Your task to perform on an android device: turn on notifications settings in the gmail app Image 0: 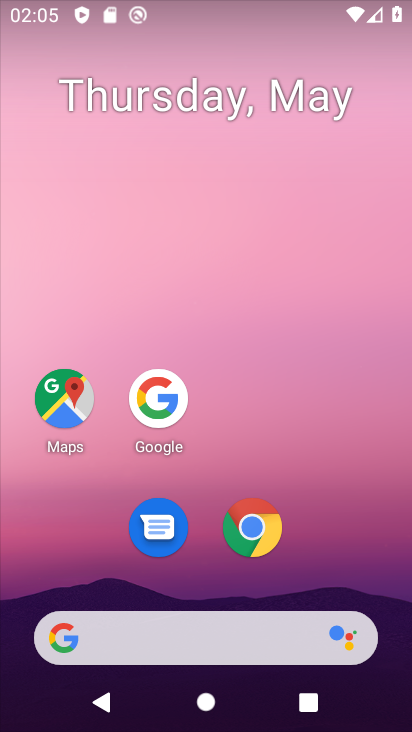
Step 0: drag from (213, 589) to (259, 227)
Your task to perform on an android device: turn on notifications settings in the gmail app Image 1: 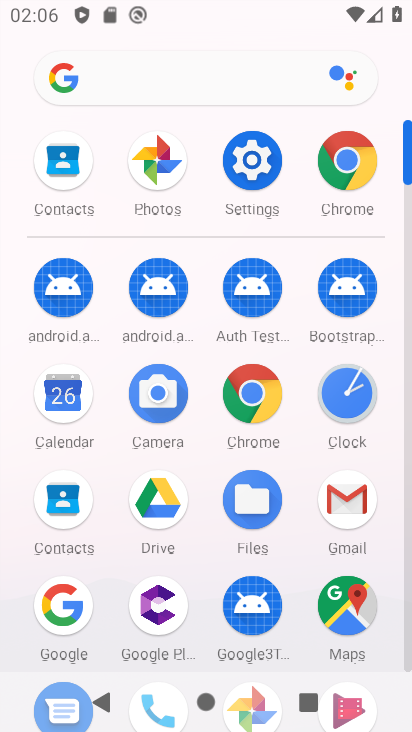
Step 1: click (342, 515)
Your task to perform on an android device: turn on notifications settings in the gmail app Image 2: 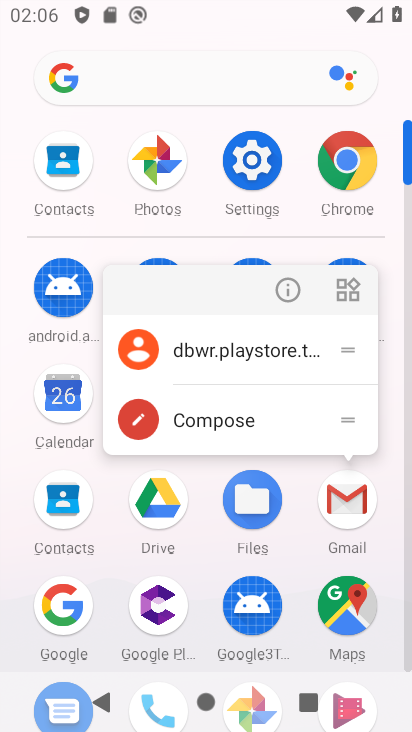
Step 2: click (193, 351)
Your task to perform on an android device: turn on notifications settings in the gmail app Image 3: 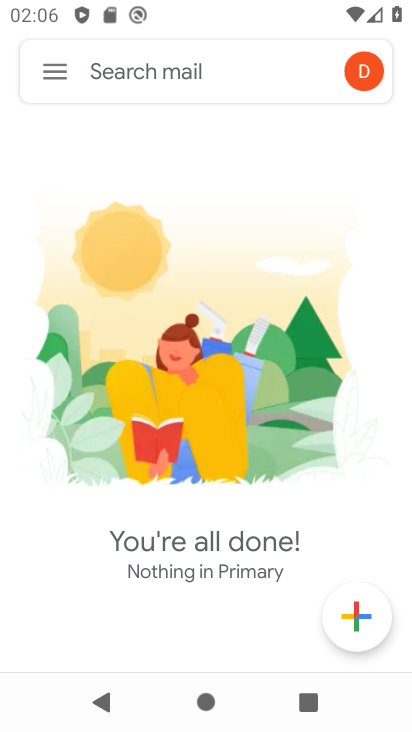
Step 3: click (57, 83)
Your task to perform on an android device: turn on notifications settings in the gmail app Image 4: 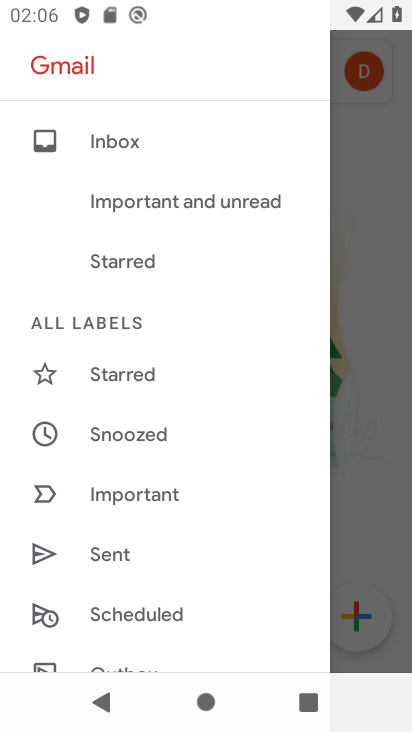
Step 4: drag from (142, 578) to (176, 138)
Your task to perform on an android device: turn on notifications settings in the gmail app Image 5: 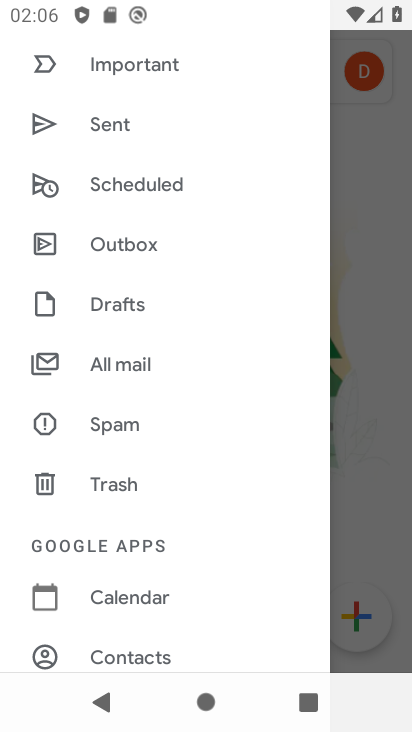
Step 5: drag from (154, 629) to (170, 229)
Your task to perform on an android device: turn on notifications settings in the gmail app Image 6: 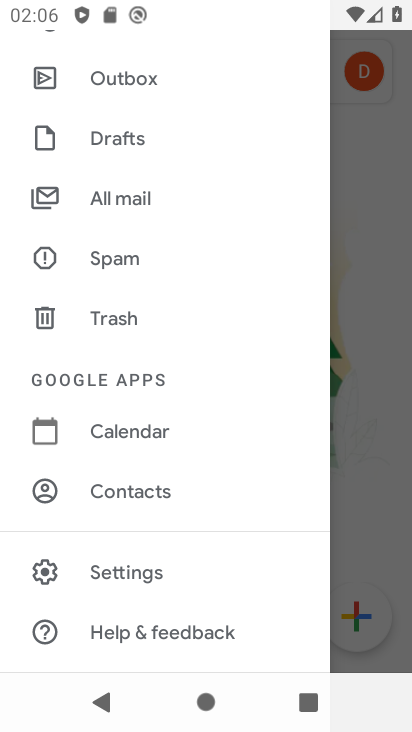
Step 6: click (119, 559)
Your task to perform on an android device: turn on notifications settings in the gmail app Image 7: 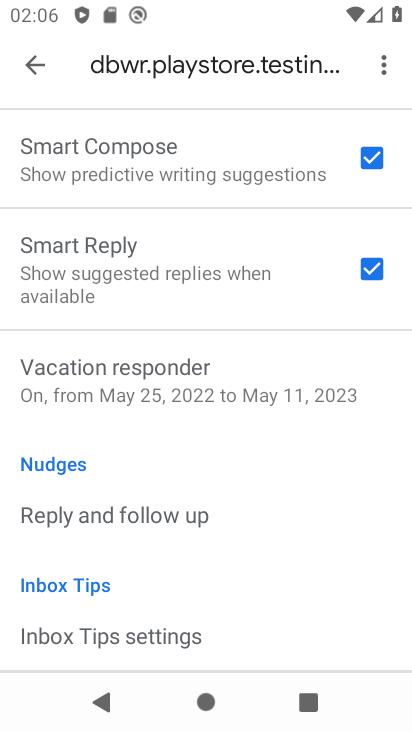
Step 7: drag from (222, 232) to (281, 727)
Your task to perform on an android device: turn on notifications settings in the gmail app Image 8: 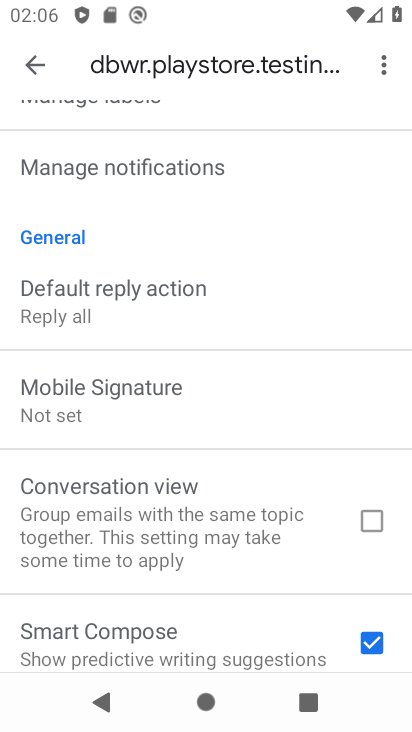
Step 8: click (154, 165)
Your task to perform on an android device: turn on notifications settings in the gmail app Image 9: 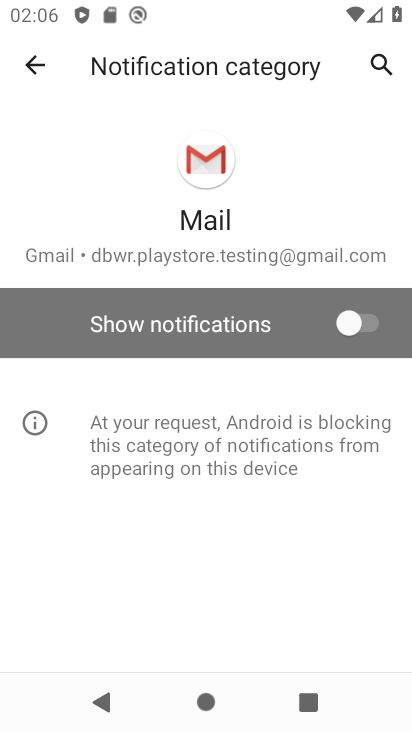
Step 9: click (338, 314)
Your task to perform on an android device: turn on notifications settings in the gmail app Image 10: 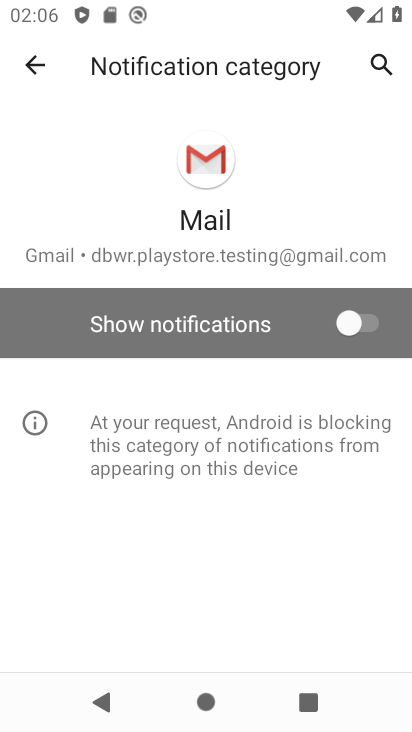
Step 10: drag from (201, 483) to (268, 222)
Your task to perform on an android device: turn on notifications settings in the gmail app Image 11: 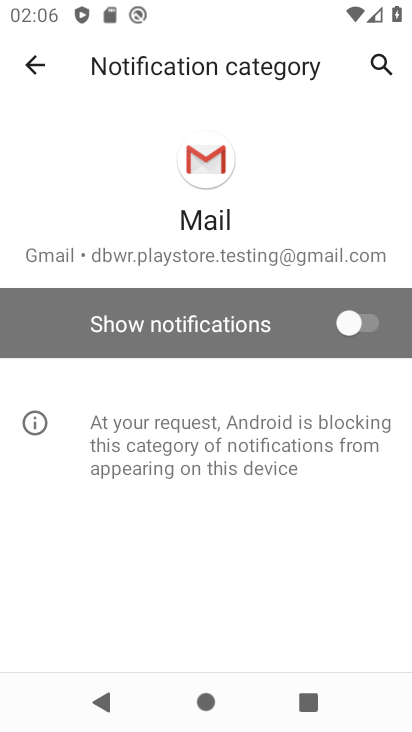
Step 11: click (352, 314)
Your task to perform on an android device: turn on notifications settings in the gmail app Image 12: 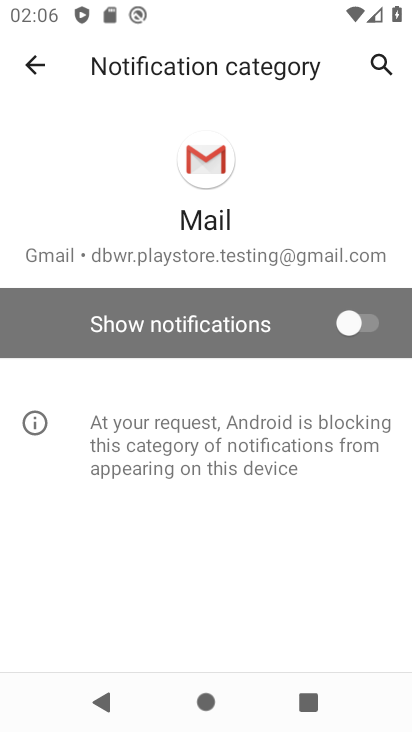
Step 12: click (366, 319)
Your task to perform on an android device: turn on notifications settings in the gmail app Image 13: 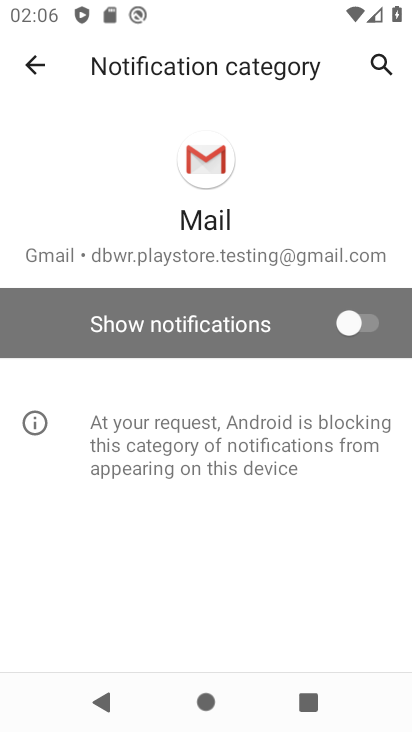
Step 13: drag from (357, 319) to (390, 330)
Your task to perform on an android device: turn on notifications settings in the gmail app Image 14: 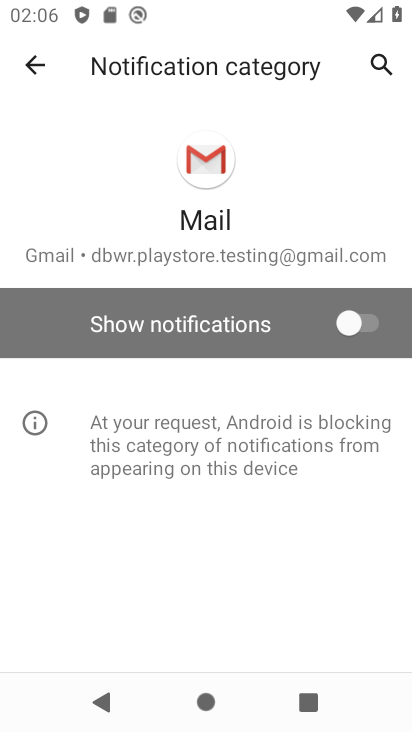
Step 14: click (263, 325)
Your task to perform on an android device: turn on notifications settings in the gmail app Image 15: 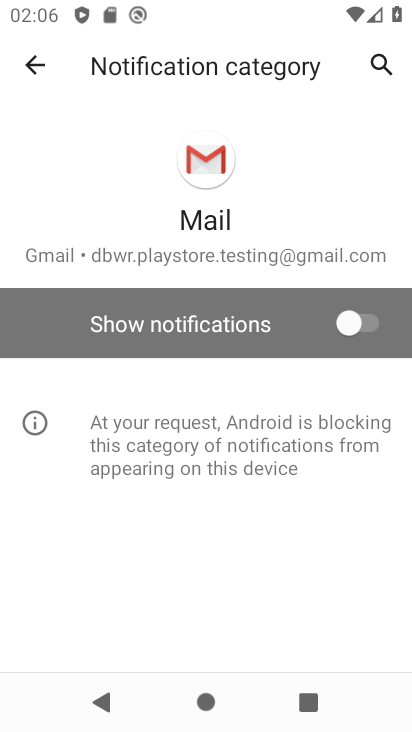
Step 15: click (263, 325)
Your task to perform on an android device: turn on notifications settings in the gmail app Image 16: 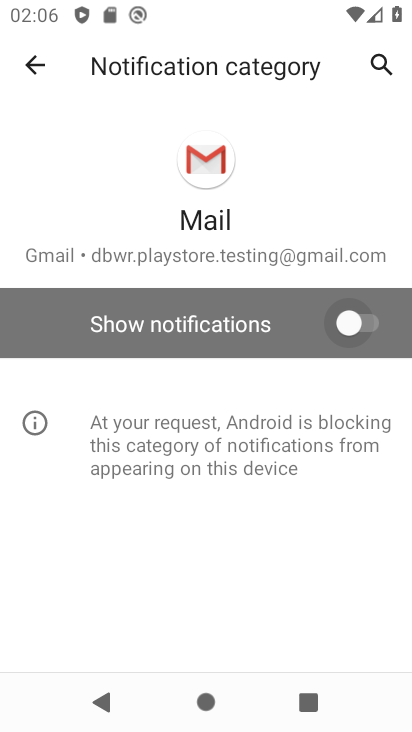
Step 16: click (263, 325)
Your task to perform on an android device: turn on notifications settings in the gmail app Image 17: 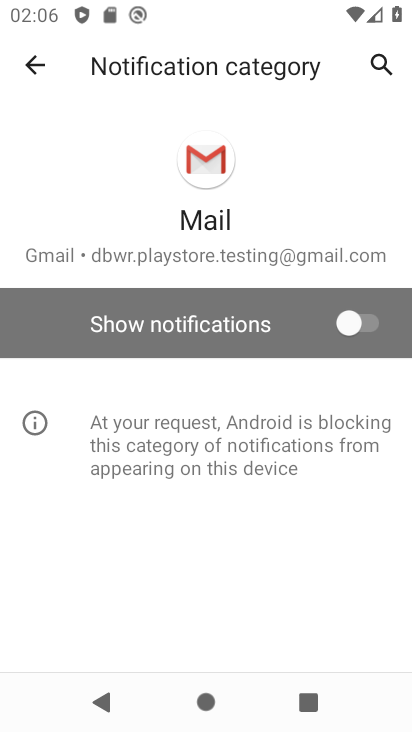
Step 17: click (337, 337)
Your task to perform on an android device: turn on notifications settings in the gmail app Image 18: 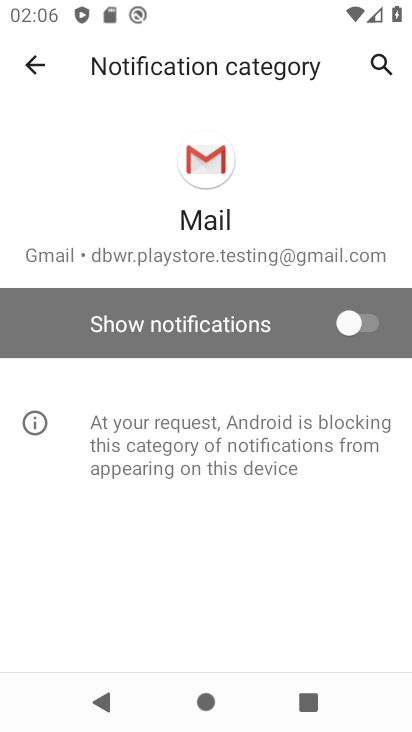
Step 18: click (335, 337)
Your task to perform on an android device: turn on notifications settings in the gmail app Image 19: 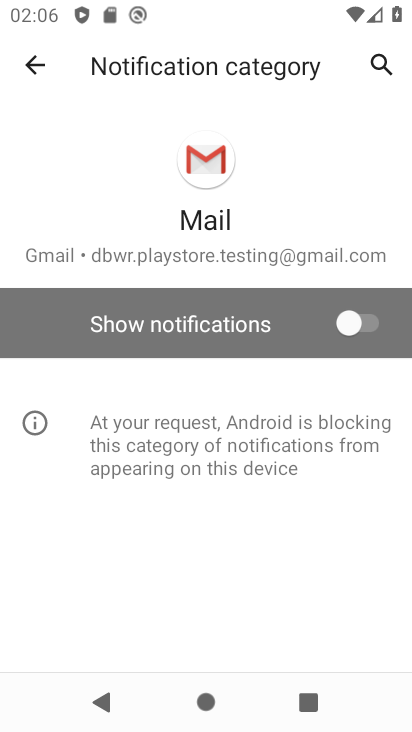
Step 19: click (343, 335)
Your task to perform on an android device: turn on notifications settings in the gmail app Image 20: 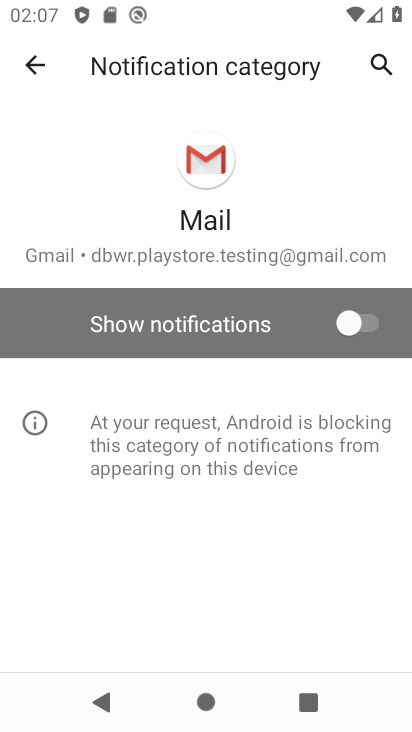
Step 20: task complete